Your task to perform on an android device: Open accessibility settings Image 0: 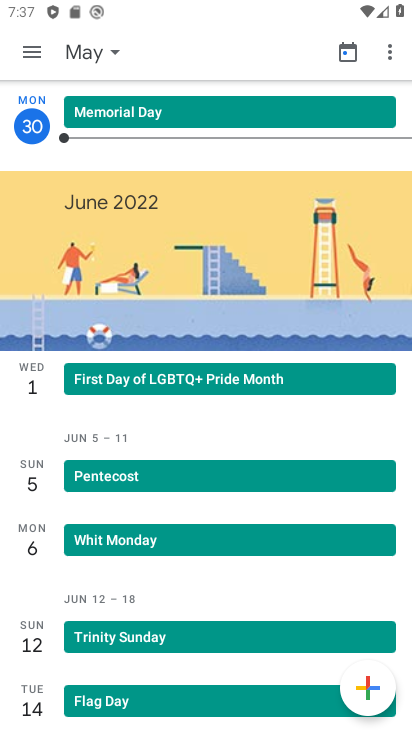
Step 0: press home button
Your task to perform on an android device: Open accessibility settings Image 1: 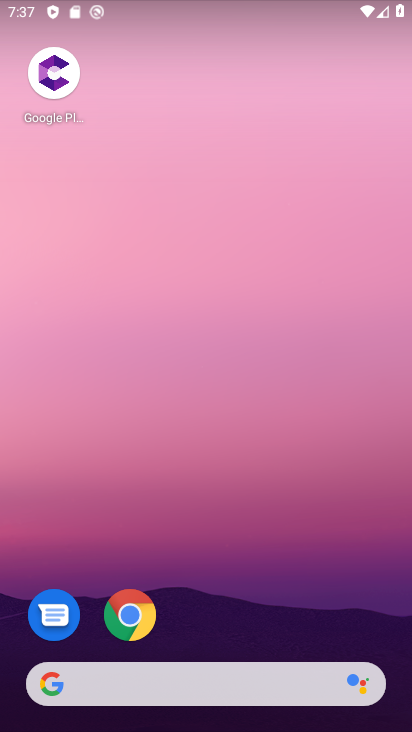
Step 1: drag from (360, 588) to (324, 8)
Your task to perform on an android device: Open accessibility settings Image 2: 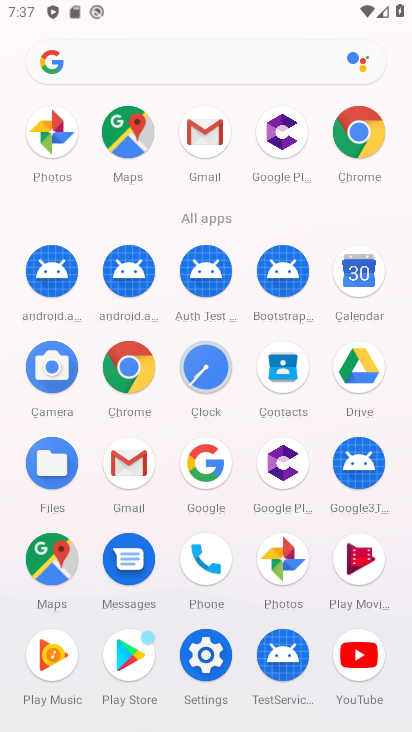
Step 2: drag from (409, 428) to (410, 91)
Your task to perform on an android device: Open accessibility settings Image 3: 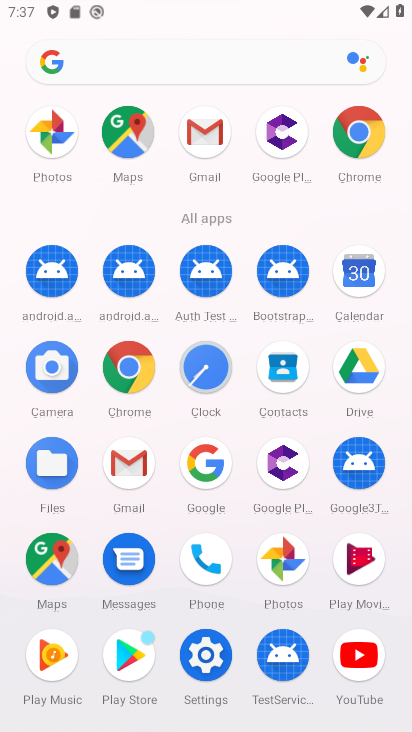
Step 3: click (213, 678)
Your task to perform on an android device: Open accessibility settings Image 4: 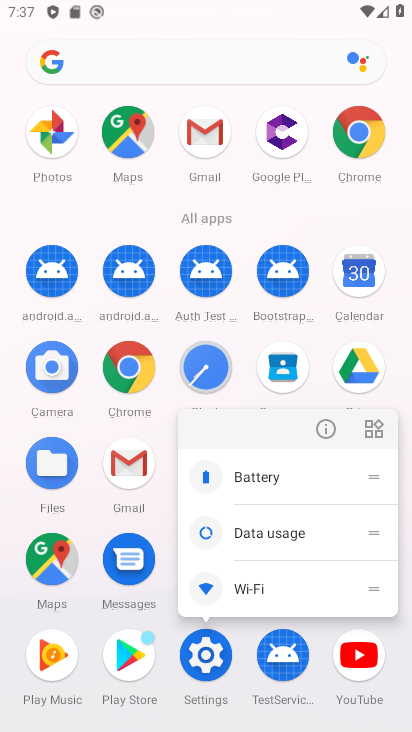
Step 4: click (203, 667)
Your task to perform on an android device: Open accessibility settings Image 5: 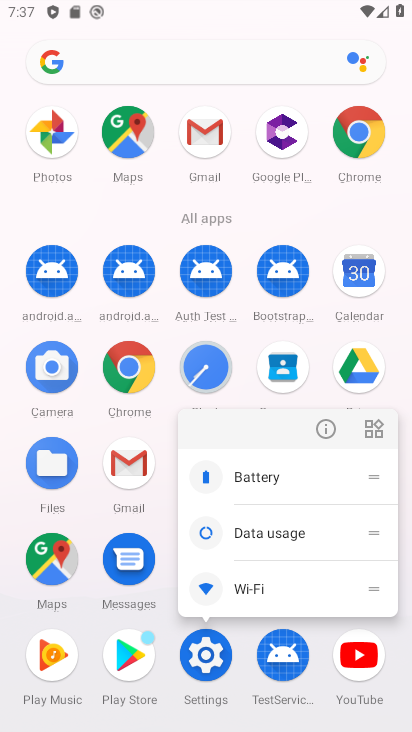
Step 5: click (203, 667)
Your task to perform on an android device: Open accessibility settings Image 6: 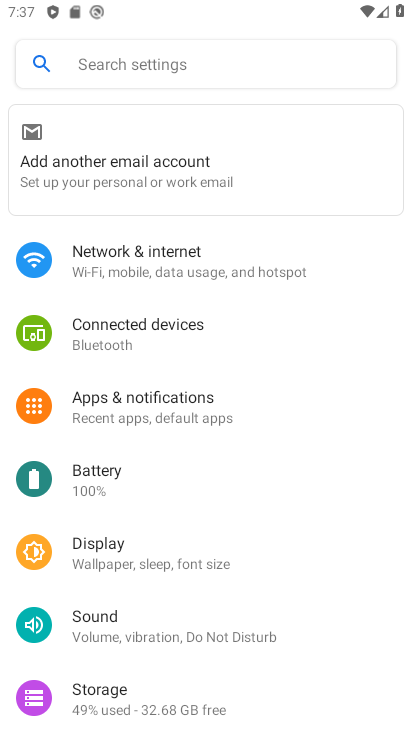
Step 6: drag from (208, 636) to (297, 256)
Your task to perform on an android device: Open accessibility settings Image 7: 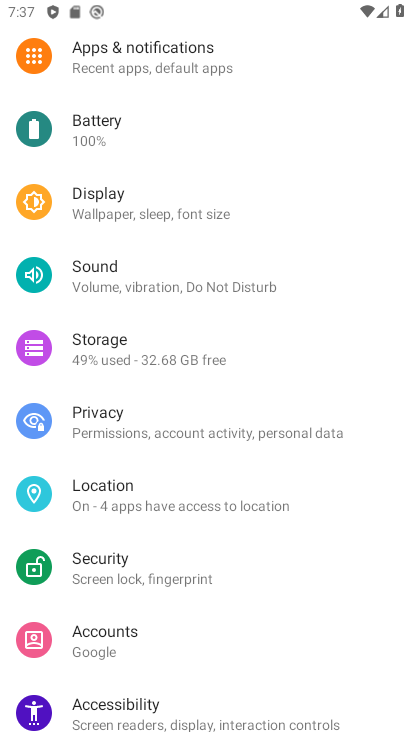
Step 7: drag from (188, 596) to (183, 205)
Your task to perform on an android device: Open accessibility settings Image 8: 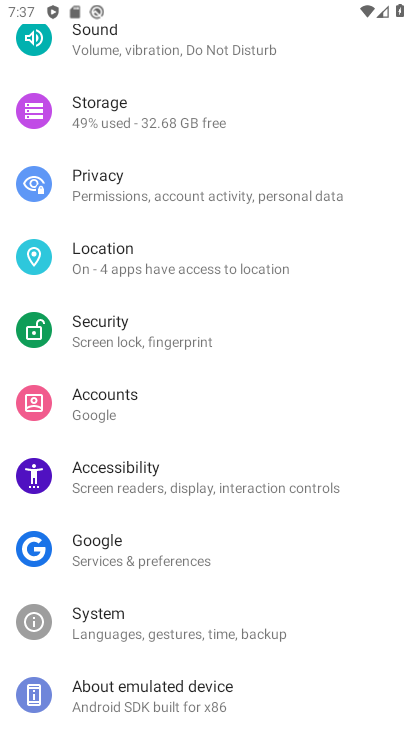
Step 8: click (133, 493)
Your task to perform on an android device: Open accessibility settings Image 9: 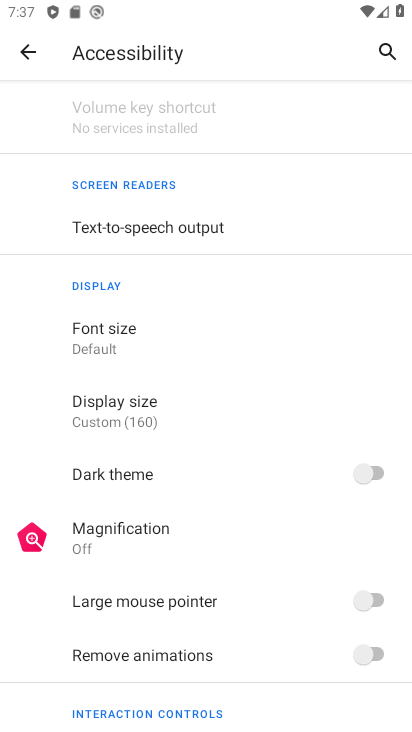
Step 9: task complete